Your task to perform on an android device: turn on the 24-hour format for clock Image 0: 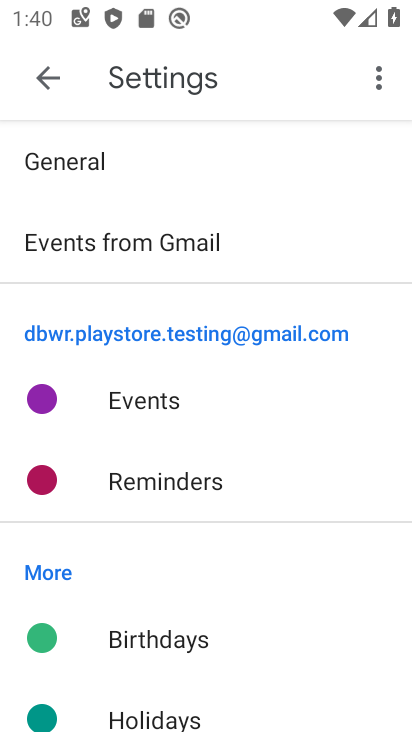
Step 0: press home button
Your task to perform on an android device: turn on the 24-hour format for clock Image 1: 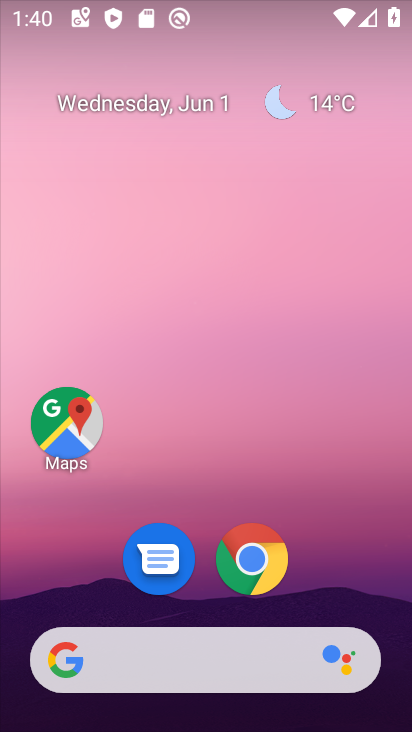
Step 1: drag from (396, 562) to (345, 86)
Your task to perform on an android device: turn on the 24-hour format for clock Image 2: 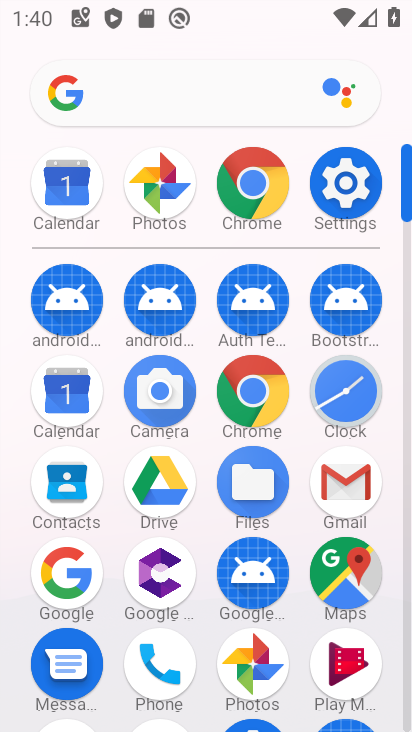
Step 2: click (346, 185)
Your task to perform on an android device: turn on the 24-hour format for clock Image 3: 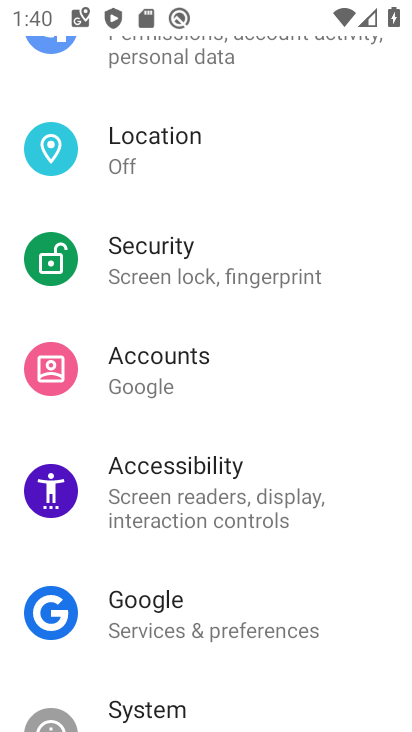
Step 3: press home button
Your task to perform on an android device: turn on the 24-hour format for clock Image 4: 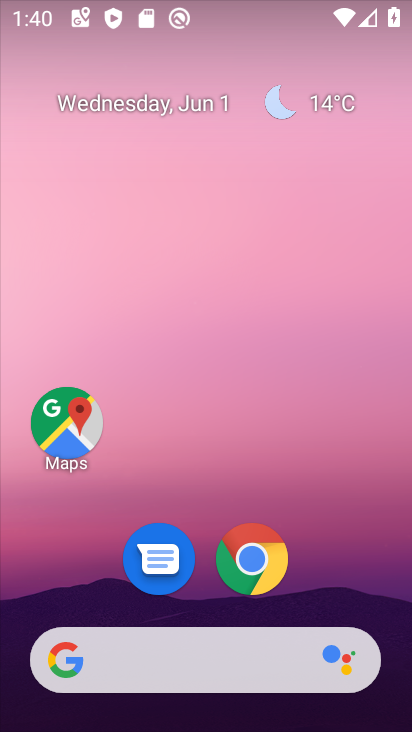
Step 4: drag from (386, 712) to (351, 105)
Your task to perform on an android device: turn on the 24-hour format for clock Image 5: 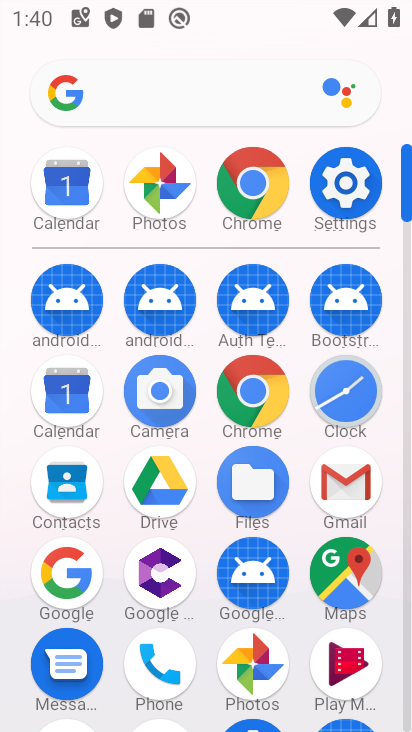
Step 5: click (347, 399)
Your task to perform on an android device: turn on the 24-hour format for clock Image 6: 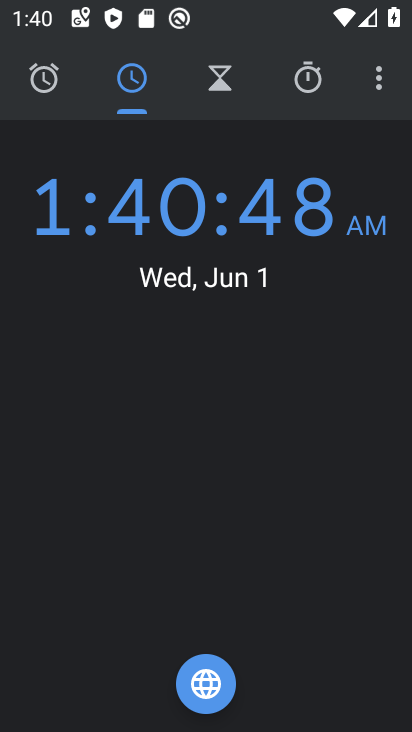
Step 6: click (381, 80)
Your task to perform on an android device: turn on the 24-hour format for clock Image 7: 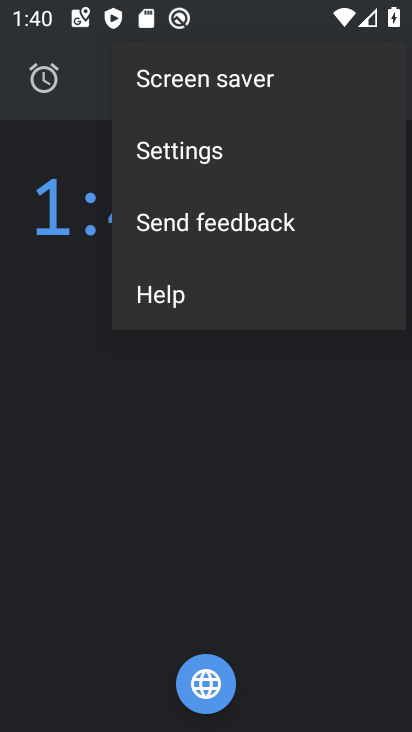
Step 7: click (146, 157)
Your task to perform on an android device: turn on the 24-hour format for clock Image 8: 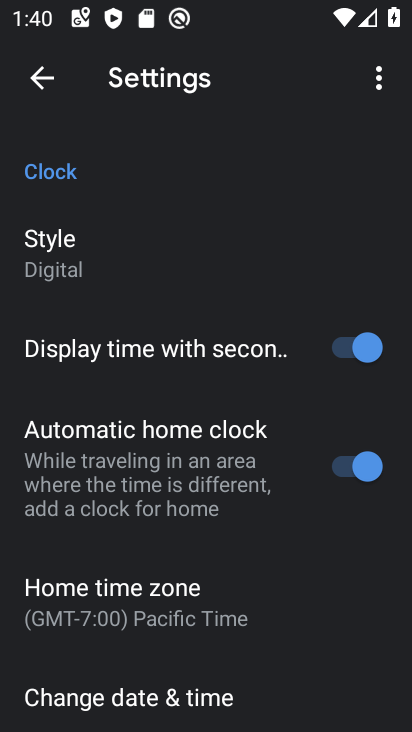
Step 8: drag from (285, 679) to (267, 269)
Your task to perform on an android device: turn on the 24-hour format for clock Image 9: 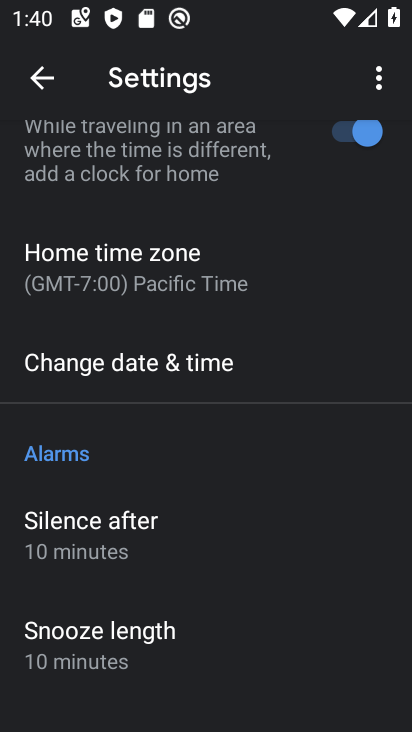
Step 9: click (142, 375)
Your task to perform on an android device: turn on the 24-hour format for clock Image 10: 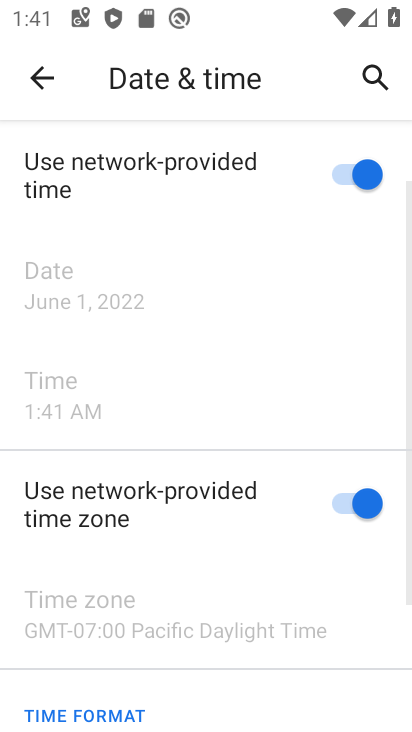
Step 10: drag from (266, 674) to (234, 331)
Your task to perform on an android device: turn on the 24-hour format for clock Image 11: 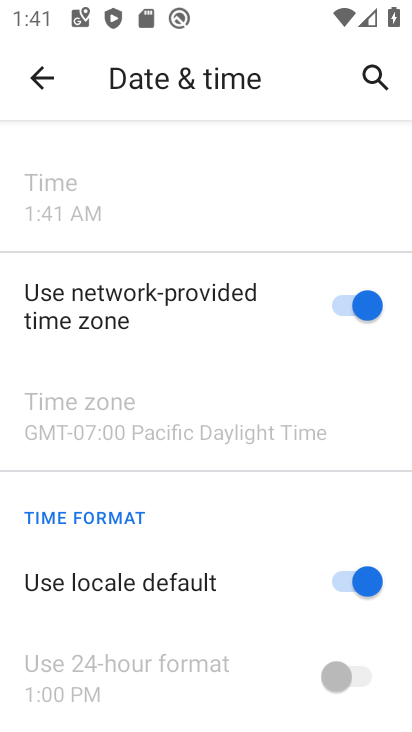
Step 11: click (331, 587)
Your task to perform on an android device: turn on the 24-hour format for clock Image 12: 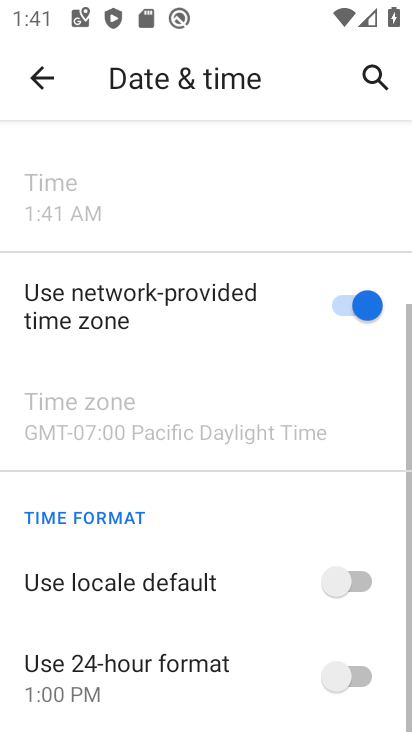
Step 12: click (358, 681)
Your task to perform on an android device: turn on the 24-hour format for clock Image 13: 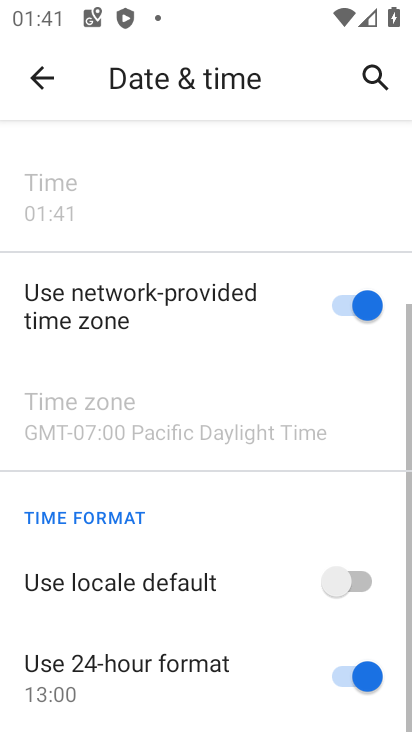
Step 13: task complete